Your task to perform on an android device: Find coffee shops on Maps Image 0: 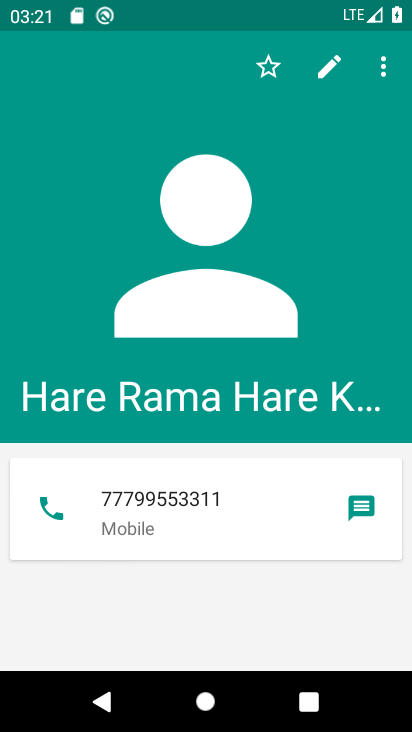
Step 0: press home button
Your task to perform on an android device: Find coffee shops on Maps Image 1: 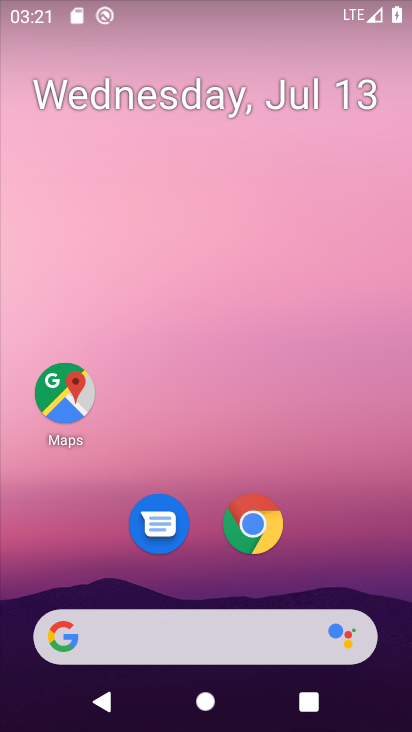
Step 1: click (68, 403)
Your task to perform on an android device: Find coffee shops on Maps Image 2: 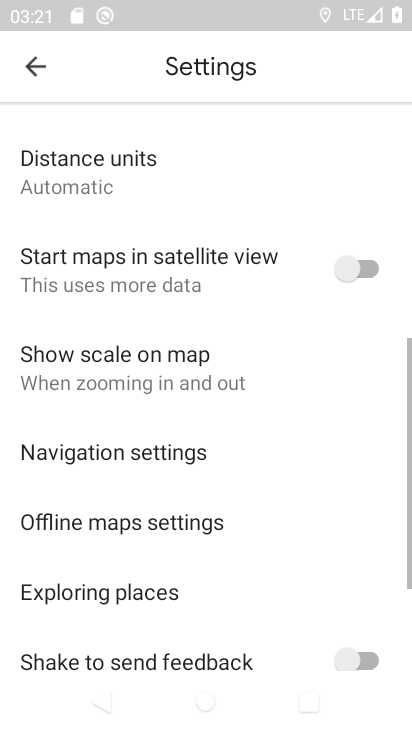
Step 2: click (34, 65)
Your task to perform on an android device: Find coffee shops on Maps Image 3: 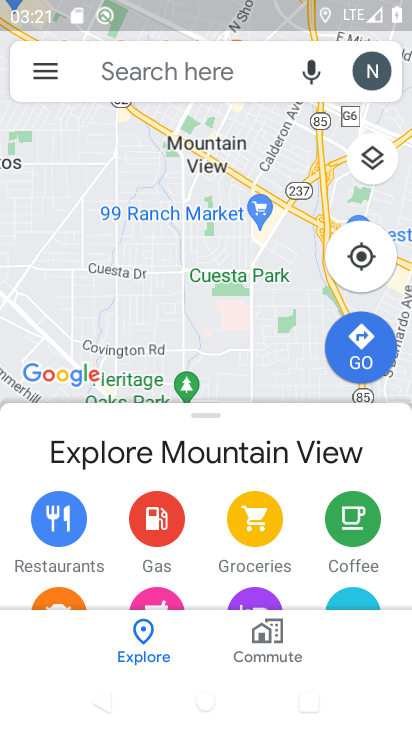
Step 3: click (143, 63)
Your task to perform on an android device: Find coffee shops on Maps Image 4: 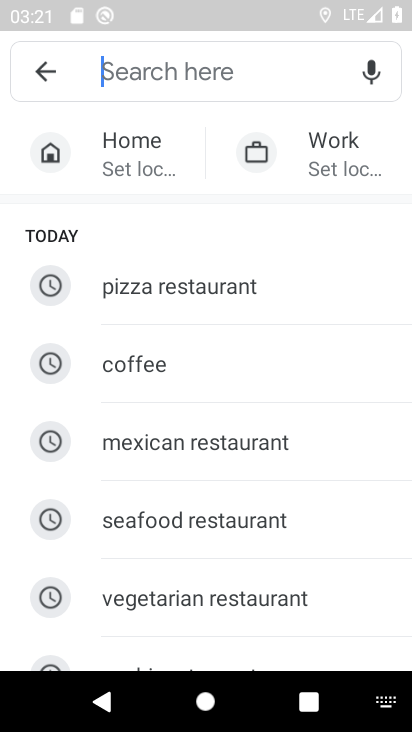
Step 4: click (137, 356)
Your task to perform on an android device: Find coffee shops on Maps Image 5: 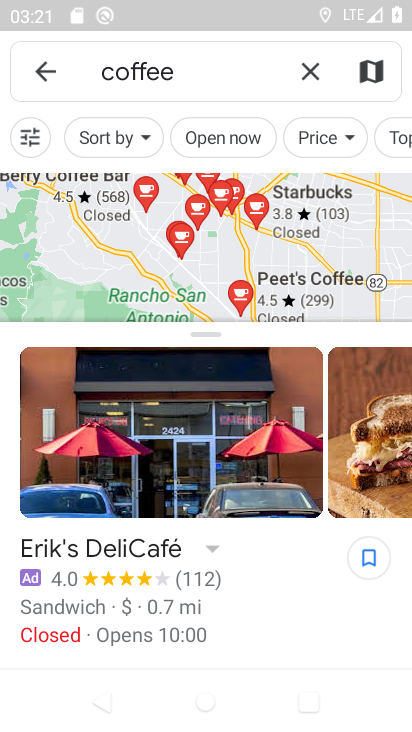
Step 5: task complete